Your task to perform on an android device: toggle location history Image 0: 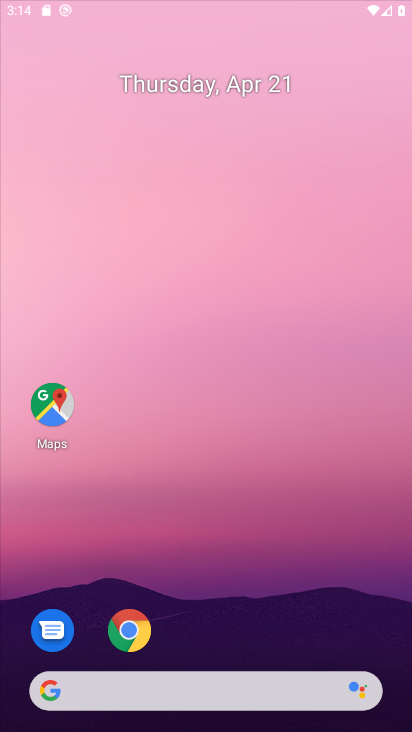
Step 0: click (406, 237)
Your task to perform on an android device: toggle location history Image 1: 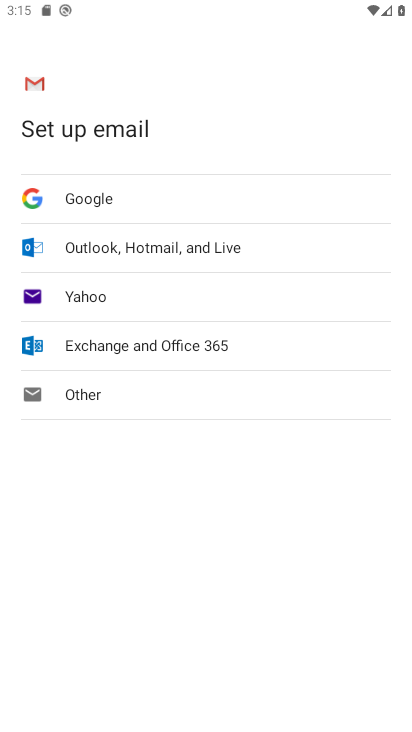
Step 1: press home button
Your task to perform on an android device: toggle location history Image 2: 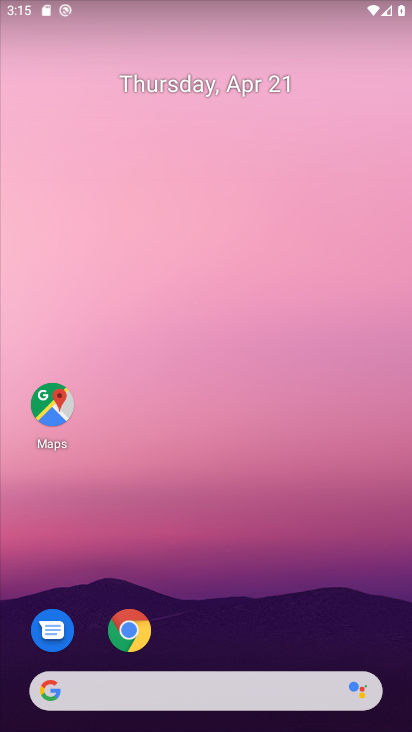
Step 2: drag from (211, 526) to (234, 49)
Your task to perform on an android device: toggle location history Image 3: 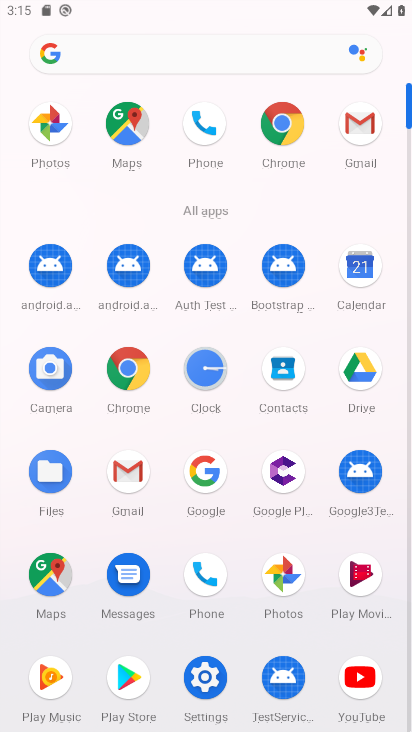
Step 3: click (215, 672)
Your task to perform on an android device: toggle location history Image 4: 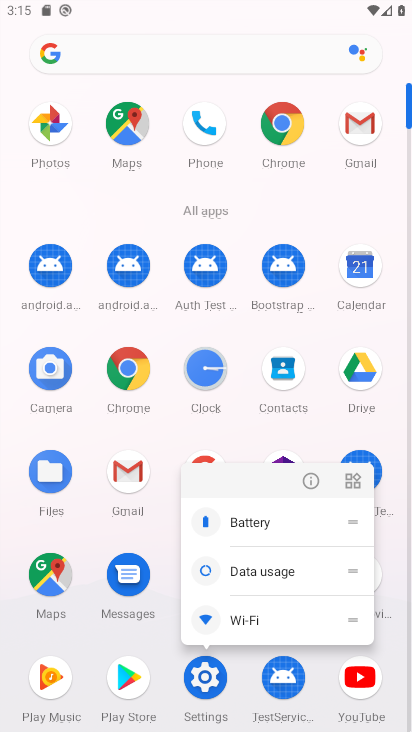
Step 4: click (315, 481)
Your task to perform on an android device: toggle location history Image 5: 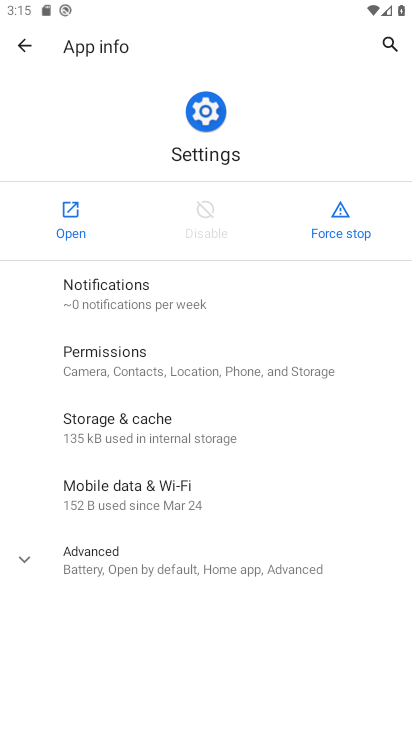
Step 5: click (83, 214)
Your task to perform on an android device: toggle location history Image 6: 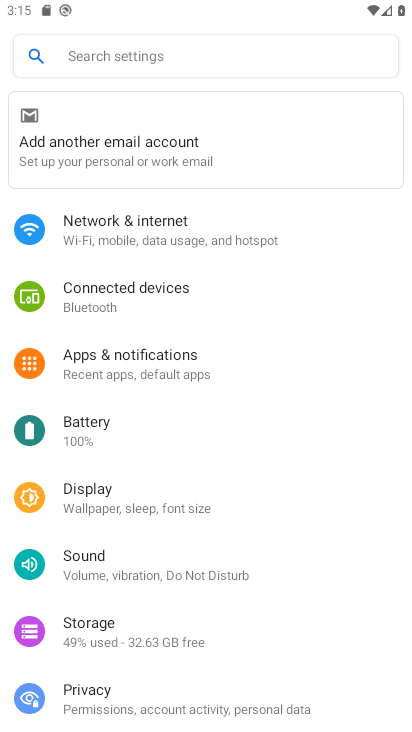
Step 6: drag from (234, 612) to (316, 158)
Your task to perform on an android device: toggle location history Image 7: 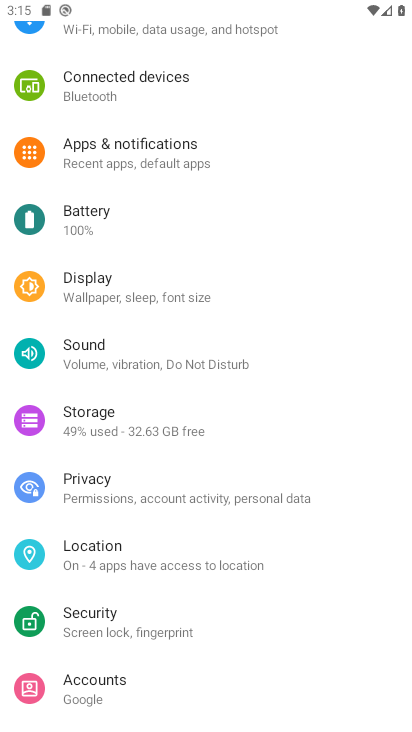
Step 7: drag from (219, 533) to (258, 271)
Your task to perform on an android device: toggle location history Image 8: 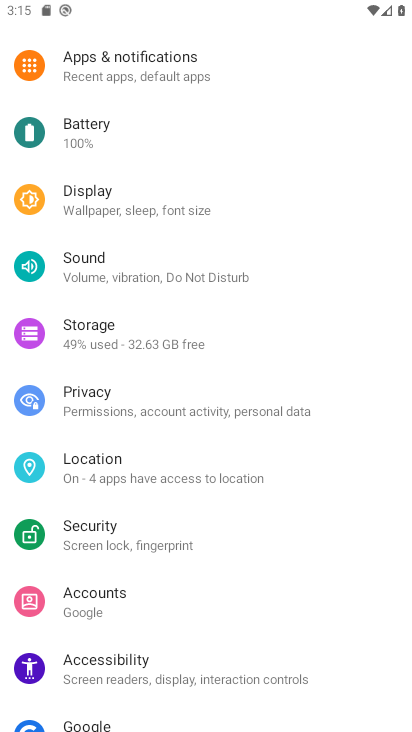
Step 8: drag from (200, 638) to (292, 277)
Your task to perform on an android device: toggle location history Image 9: 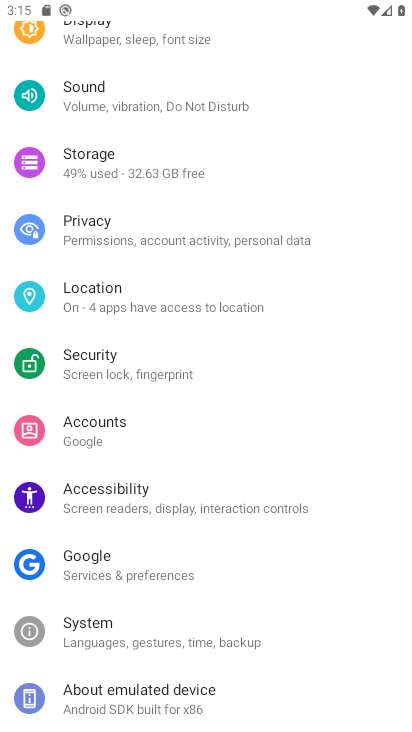
Step 9: click (153, 307)
Your task to perform on an android device: toggle location history Image 10: 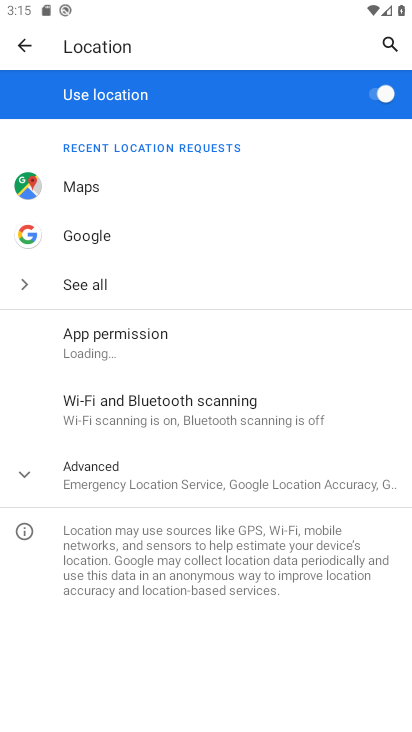
Step 10: drag from (244, 475) to (301, 285)
Your task to perform on an android device: toggle location history Image 11: 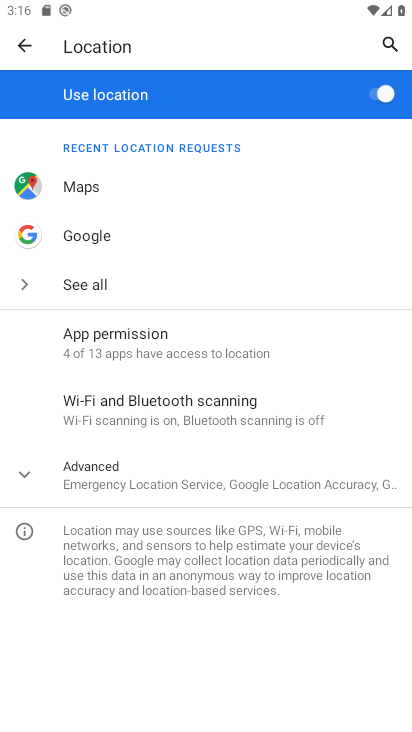
Step 11: click (138, 479)
Your task to perform on an android device: toggle location history Image 12: 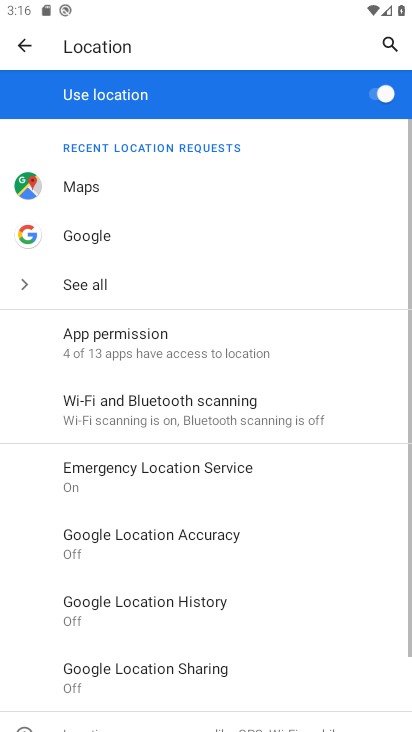
Step 12: drag from (219, 543) to (340, 188)
Your task to perform on an android device: toggle location history Image 13: 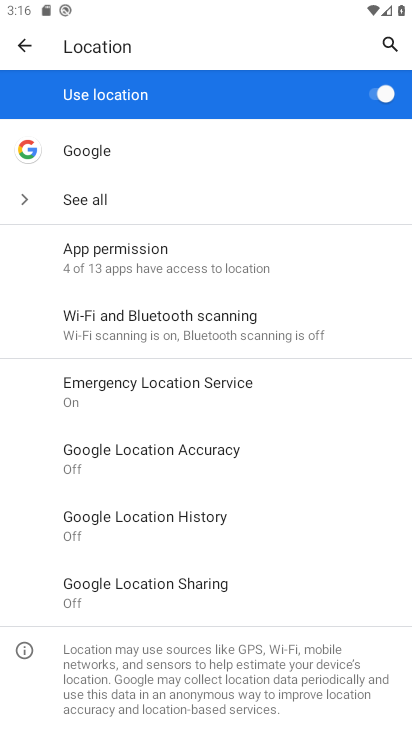
Step 13: click (167, 529)
Your task to perform on an android device: toggle location history Image 14: 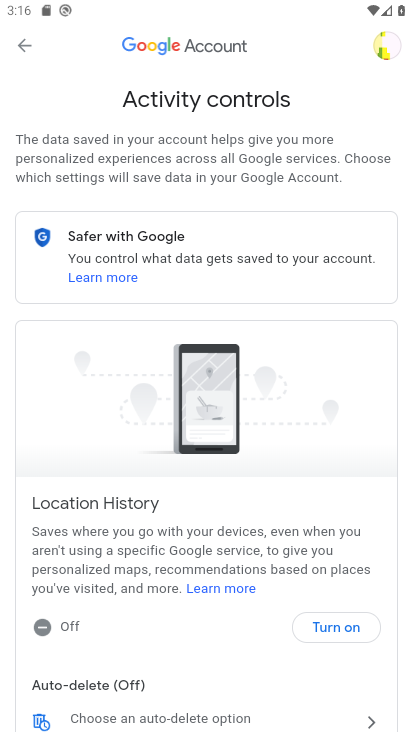
Step 14: drag from (239, 533) to (346, 31)
Your task to perform on an android device: toggle location history Image 15: 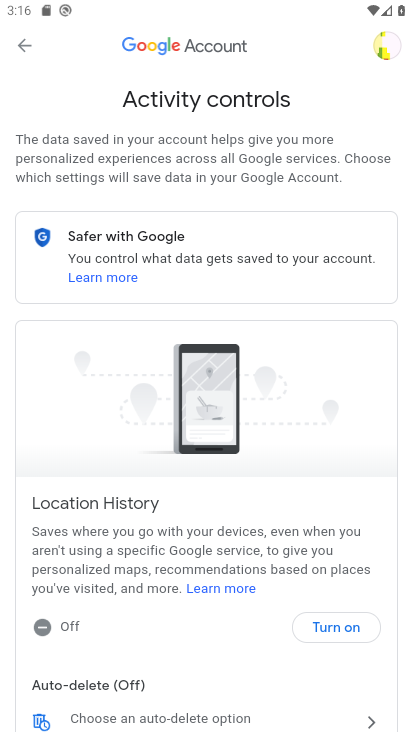
Step 15: drag from (234, 600) to (300, 224)
Your task to perform on an android device: toggle location history Image 16: 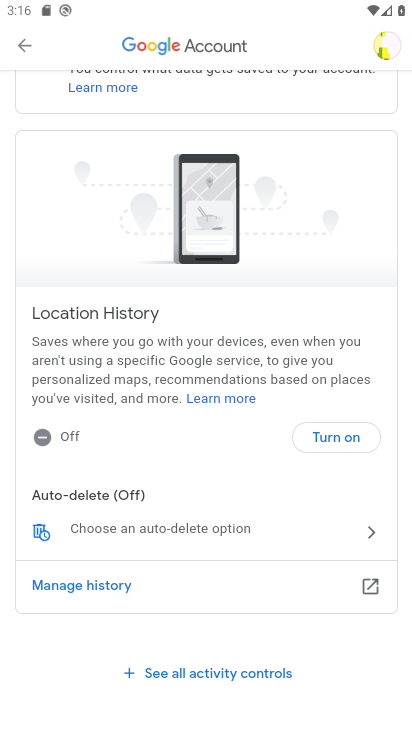
Step 16: drag from (224, 533) to (310, 141)
Your task to perform on an android device: toggle location history Image 17: 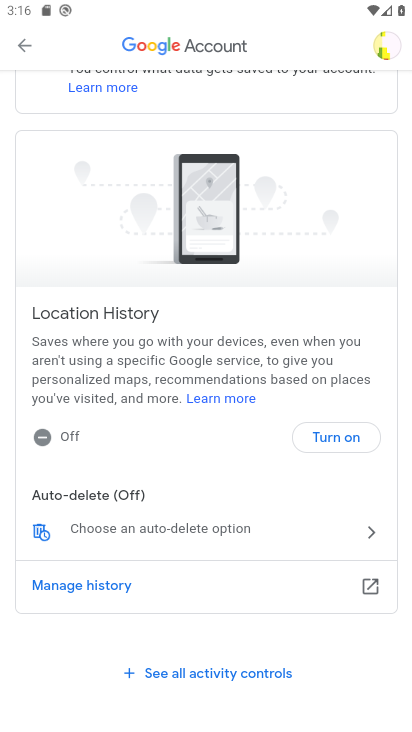
Step 17: drag from (215, 427) to (297, 191)
Your task to perform on an android device: toggle location history Image 18: 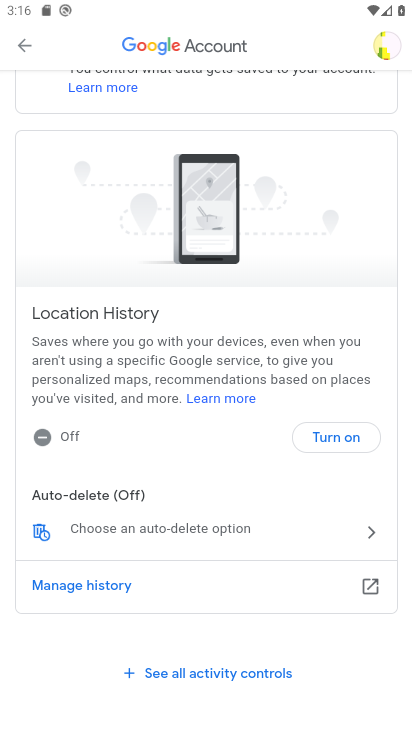
Step 18: drag from (217, 457) to (274, 72)
Your task to perform on an android device: toggle location history Image 19: 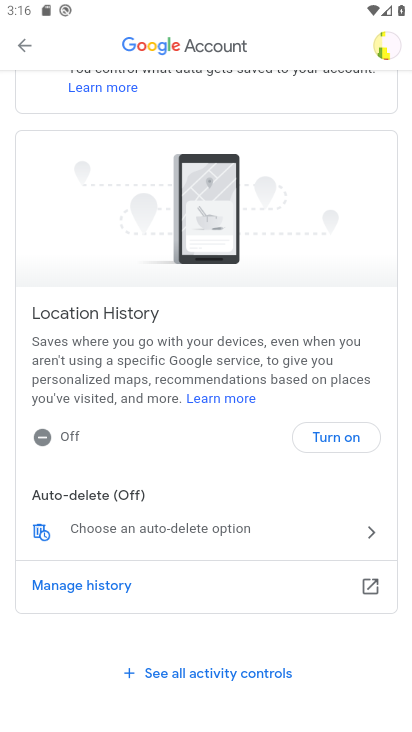
Step 19: drag from (202, 396) to (235, 251)
Your task to perform on an android device: toggle location history Image 20: 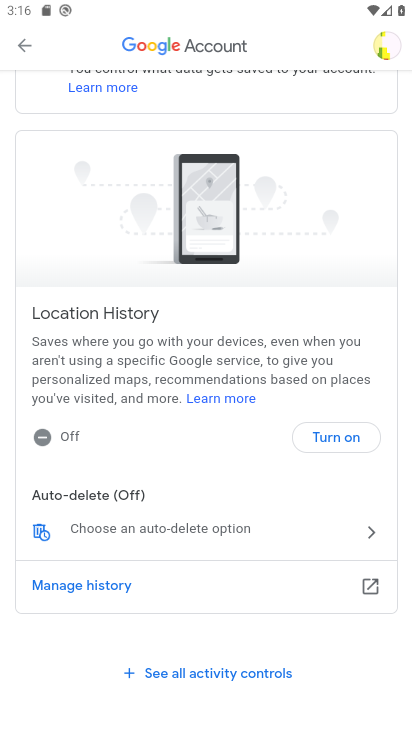
Step 20: click (326, 443)
Your task to perform on an android device: toggle location history Image 21: 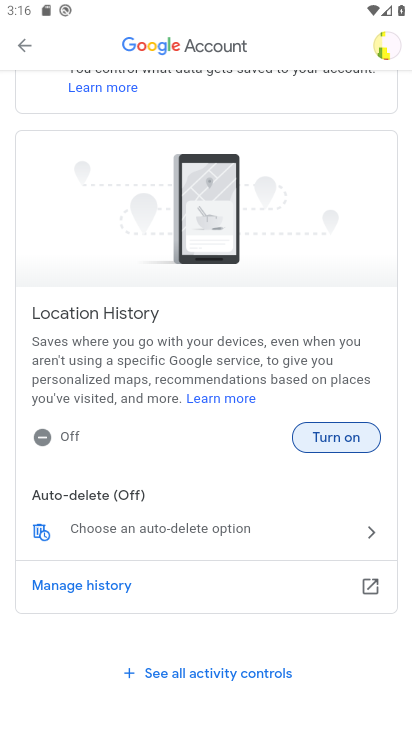
Step 21: click (320, 437)
Your task to perform on an android device: toggle location history Image 22: 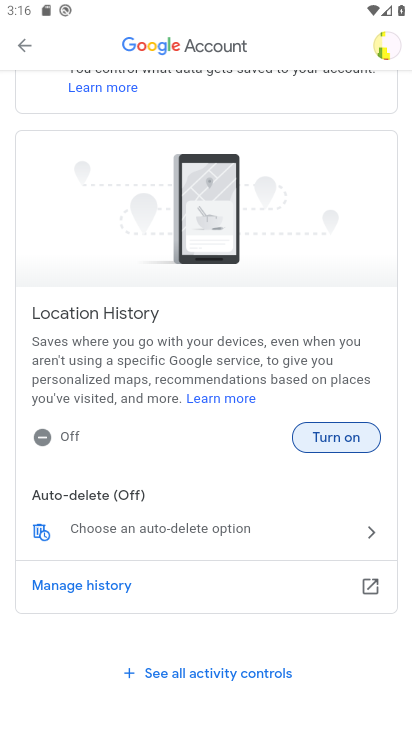
Step 22: drag from (305, 473) to (322, 80)
Your task to perform on an android device: toggle location history Image 23: 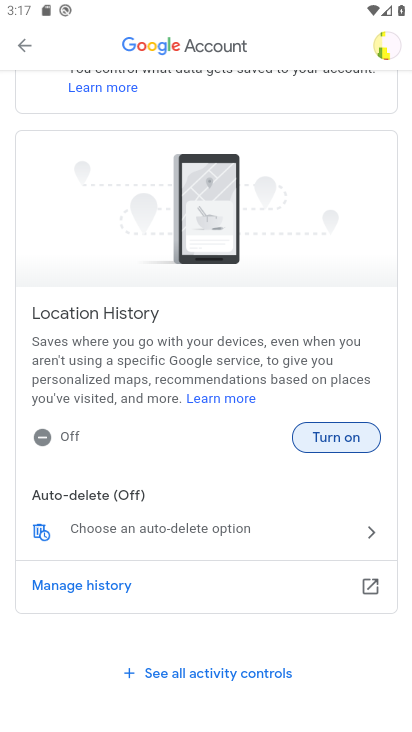
Step 23: click (343, 438)
Your task to perform on an android device: toggle location history Image 24: 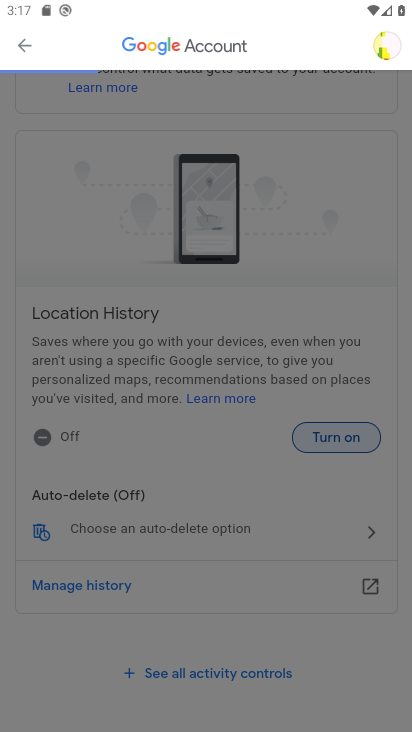
Step 24: click (343, 438)
Your task to perform on an android device: toggle location history Image 25: 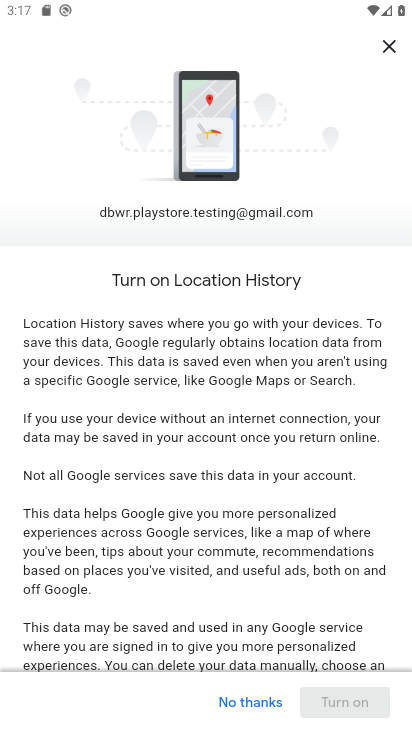
Step 25: drag from (309, 619) to (401, 141)
Your task to perform on an android device: toggle location history Image 26: 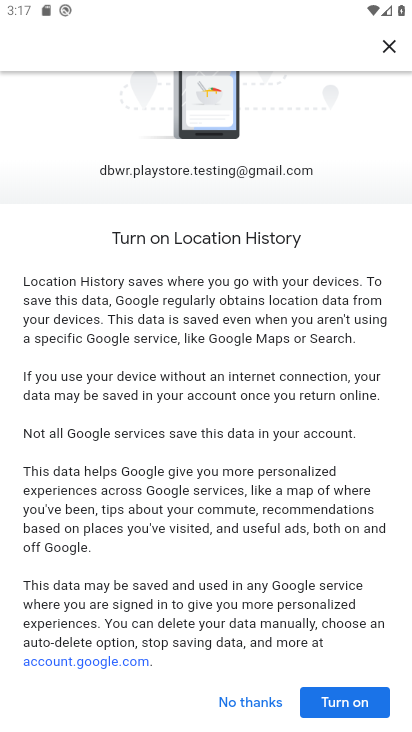
Step 26: drag from (233, 488) to (326, 74)
Your task to perform on an android device: toggle location history Image 27: 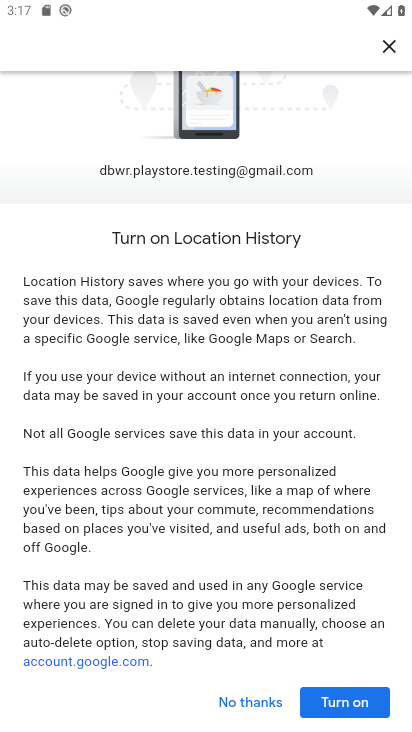
Step 27: click (318, 715)
Your task to perform on an android device: toggle location history Image 28: 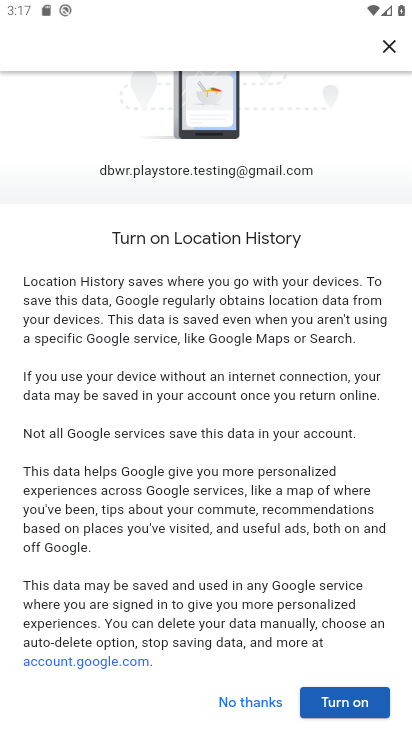
Step 28: click (334, 702)
Your task to perform on an android device: toggle location history Image 29: 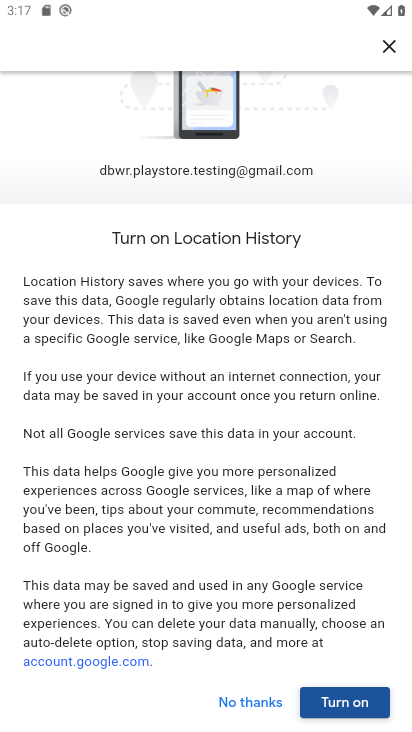
Step 29: click (334, 702)
Your task to perform on an android device: toggle location history Image 30: 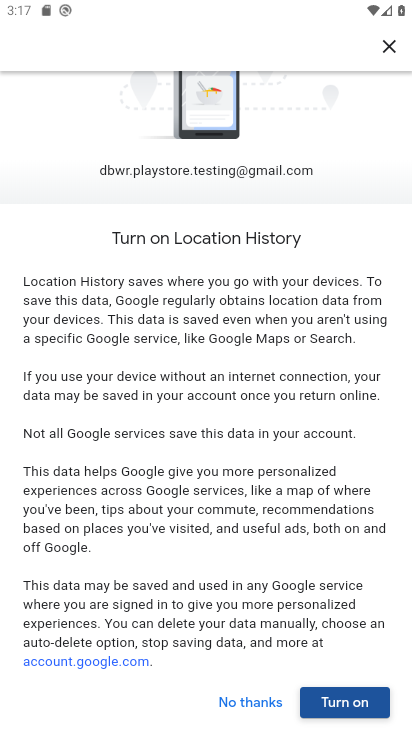
Step 30: drag from (288, 576) to (322, 167)
Your task to perform on an android device: toggle location history Image 31: 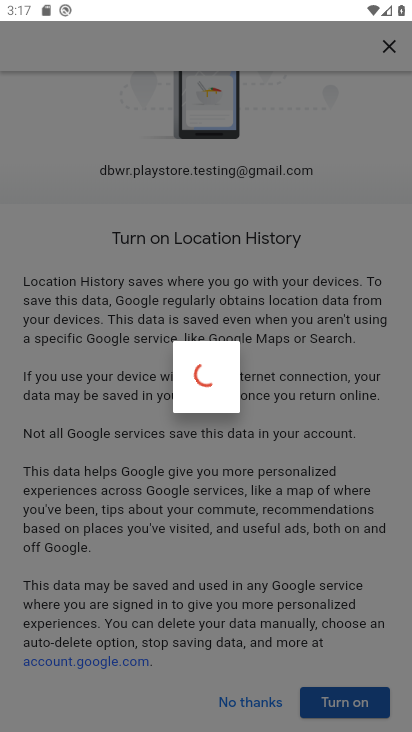
Step 31: drag from (281, 529) to (364, 148)
Your task to perform on an android device: toggle location history Image 32: 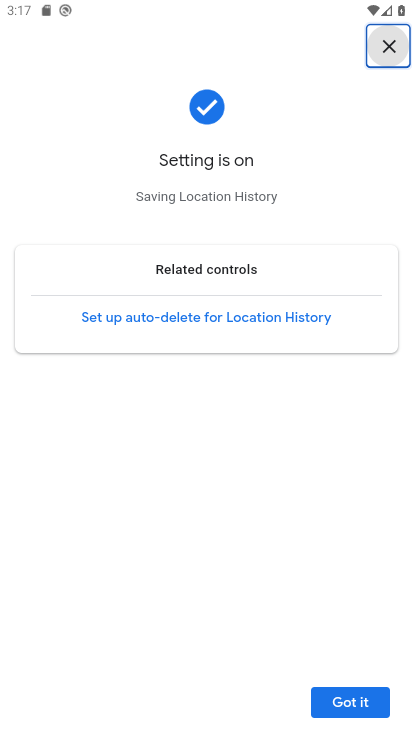
Step 32: click (337, 700)
Your task to perform on an android device: toggle location history Image 33: 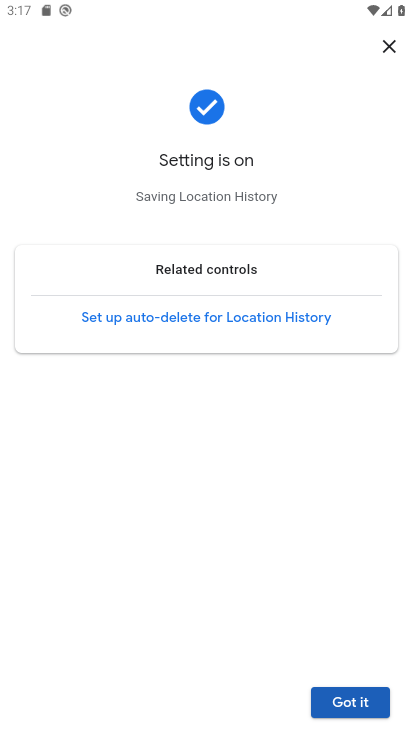
Step 33: task complete